Your task to perform on an android device: Go to calendar. Show me events next week Image 0: 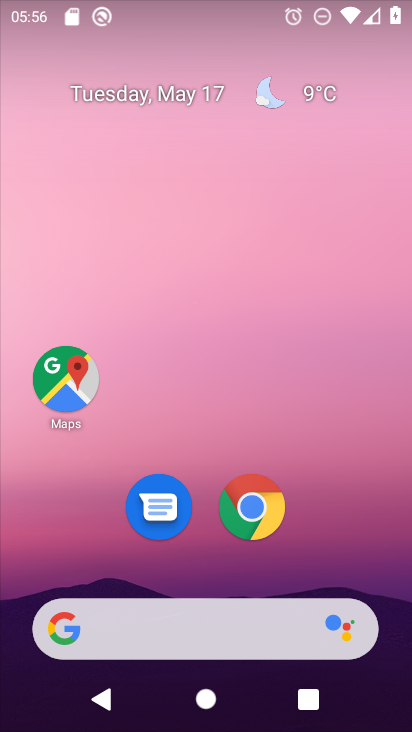
Step 0: click (167, 98)
Your task to perform on an android device: Go to calendar. Show me events next week Image 1: 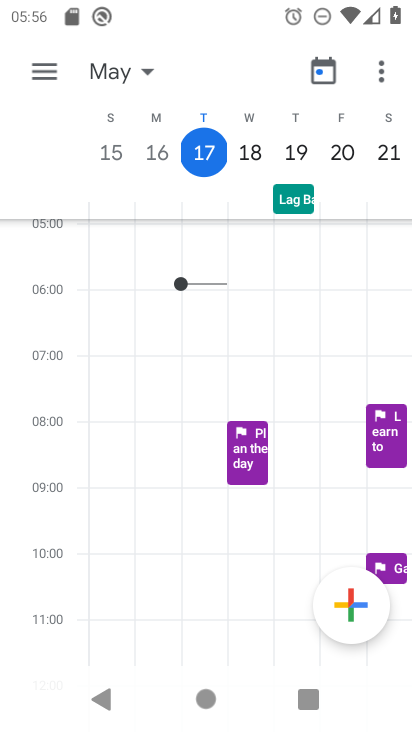
Step 1: task complete